Your task to perform on an android device: Toggle the flashlight Image 0: 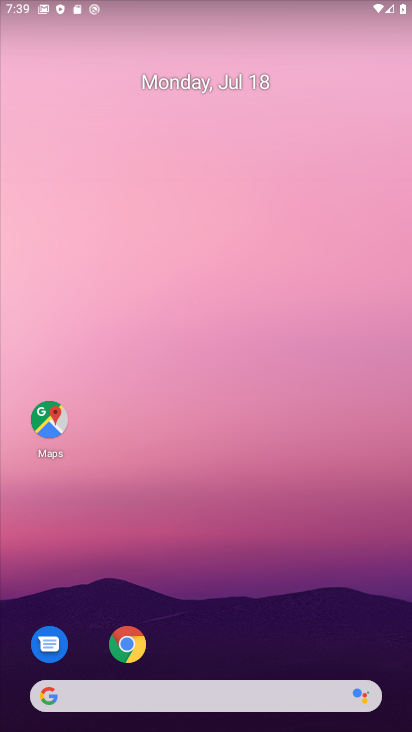
Step 0: drag from (339, 5) to (351, 509)
Your task to perform on an android device: Toggle the flashlight Image 1: 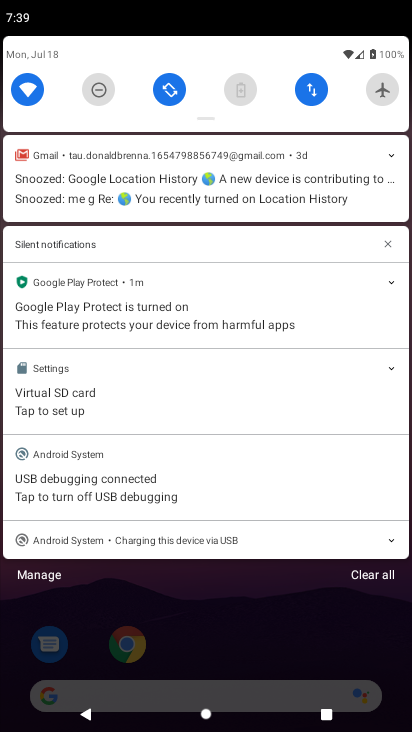
Step 1: task complete